Your task to perform on an android device: open app "Yahoo Mail" Image 0: 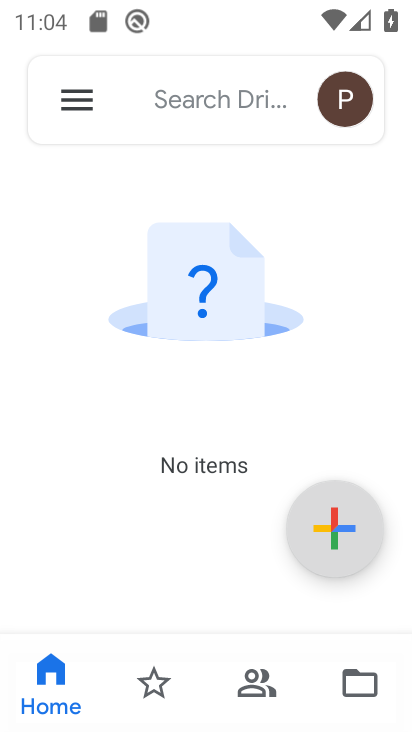
Step 0: press home button
Your task to perform on an android device: open app "Yahoo Mail" Image 1: 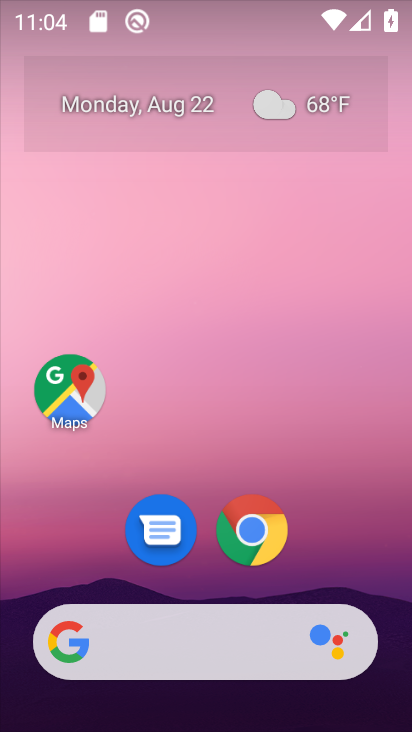
Step 1: drag from (168, 655) to (329, 240)
Your task to perform on an android device: open app "Yahoo Mail" Image 2: 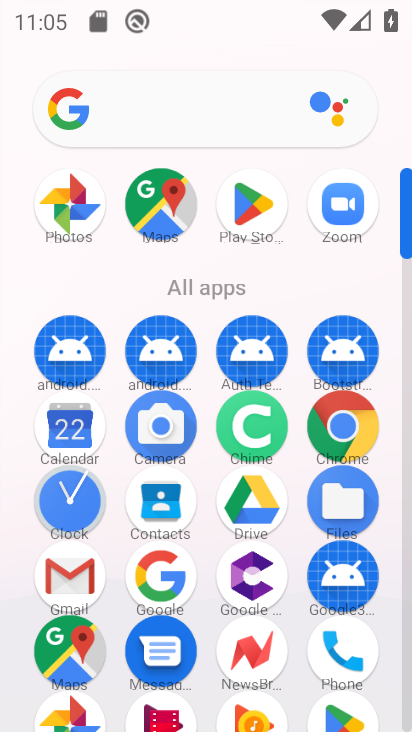
Step 2: click (261, 206)
Your task to perform on an android device: open app "Yahoo Mail" Image 3: 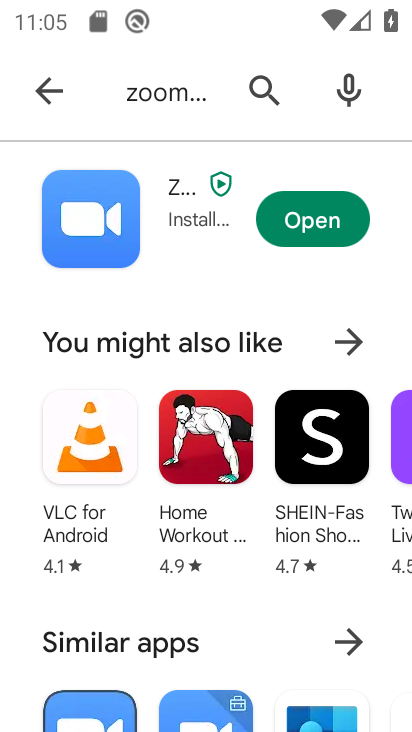
Step 3: press back button
Your task to perform on an android device: open app "Yahoo Mail" Image 4: 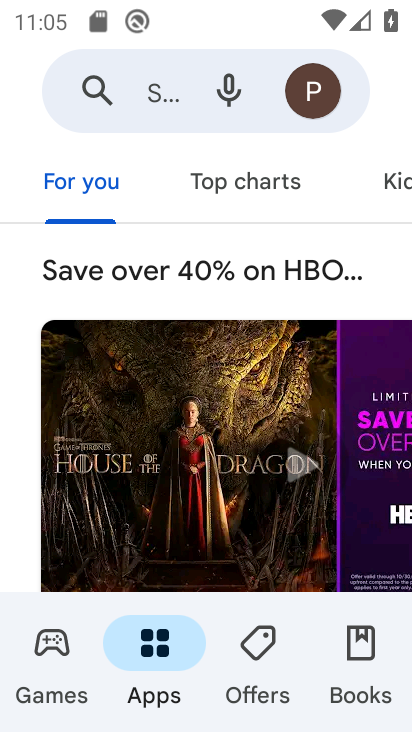
Step 4: click (177, 104)
Your task to perform on an android device: open app "Yahoo Mail" Image 5: 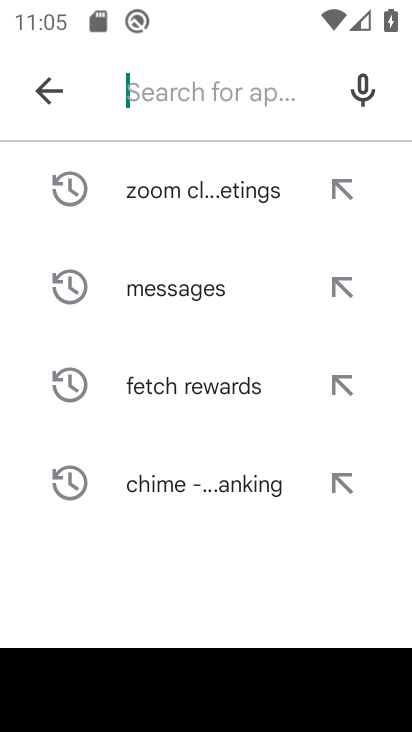
Step 5: type "Yahoo MAil"
Your task to perform on an android device: open app "Yahoo Mail" Image 6: 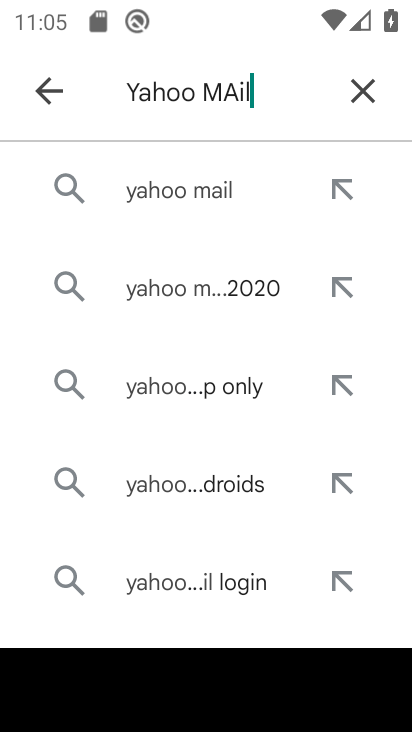
Step 6: click (210, 198)
Your task to perform on an android device: open app "Yahoo Mail" Image 7: 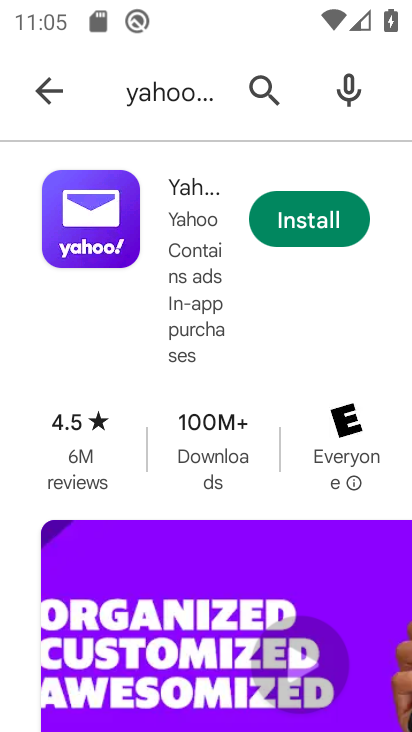
Step 7: task complete